Your task to perform on an android device: clear history in the chrome app Image 0: 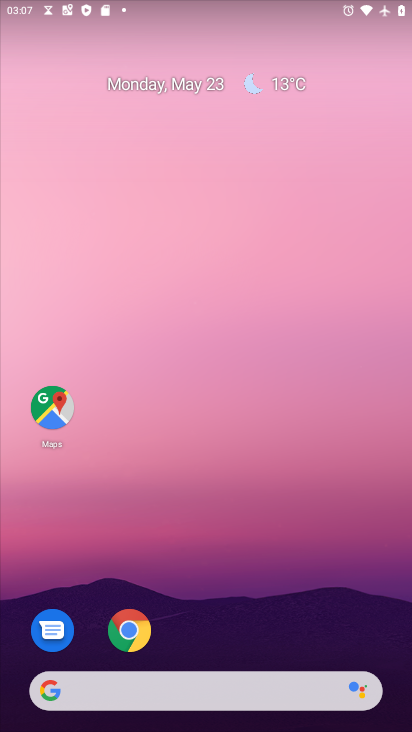
Step 0: click (121, 619)
Your task to perform on an android device: clear history in the chrome app Image 1: 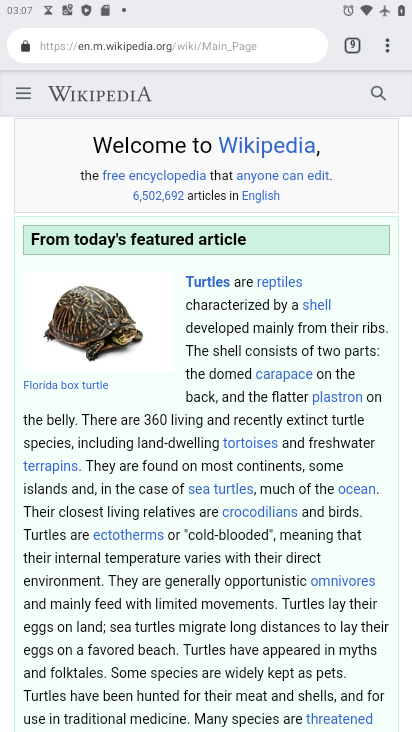
Step 1: click (384, 49)
Your task to perform on an android device: clear history in the chrome app Image 2: 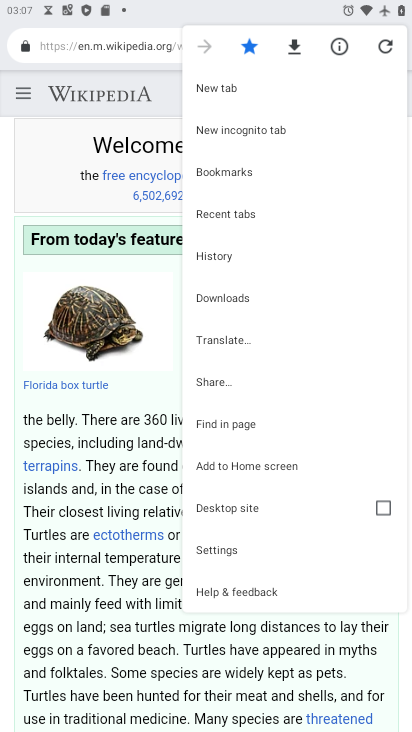
Step 2: click (248, 249)
Your task to perform on an android device: clear history in the chrome app Image 3: 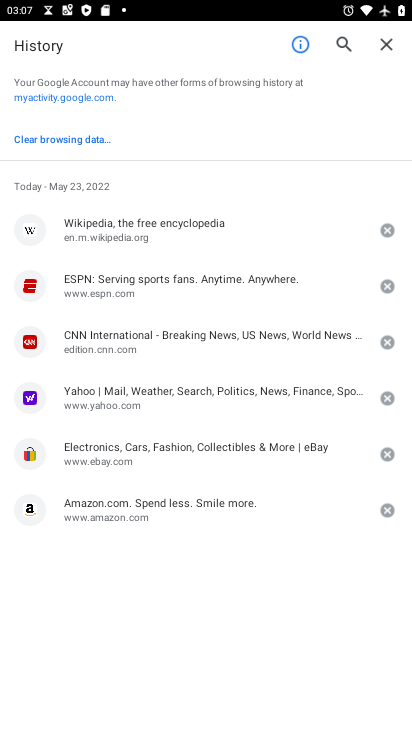
Step 3: click (77, 129)
Your task to perform on an android device: clear history in the chrome app Image 4: 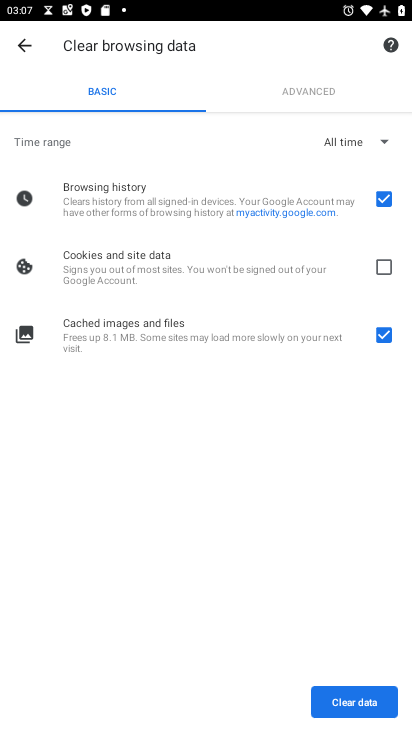
Step 4: click (358, 708)
Your task to perform on an android device: clear history in the chrome app Image 5: 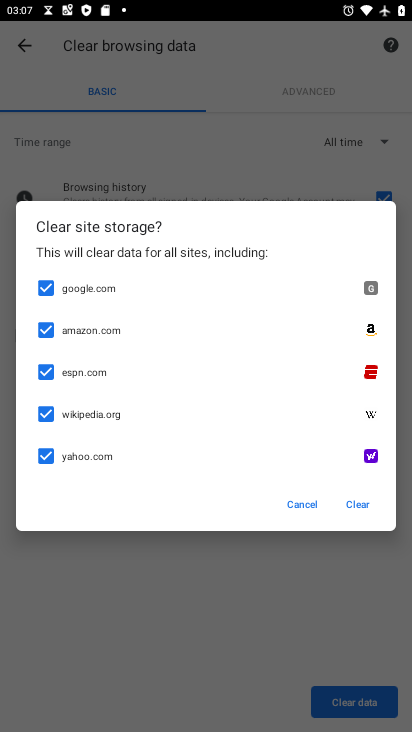
Step 5: click (348, 493)
Your task to perform on an android device: clear history in the chrome app Image 6: 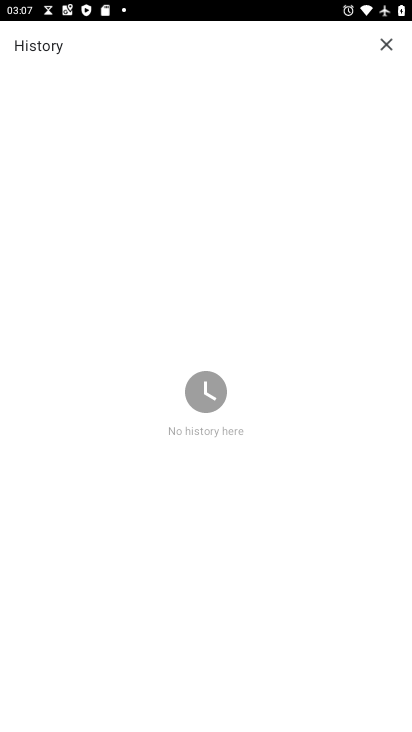
Step 6: task complete